Your task to perform on an android device: see sites visited before in the chrome app Image 0: 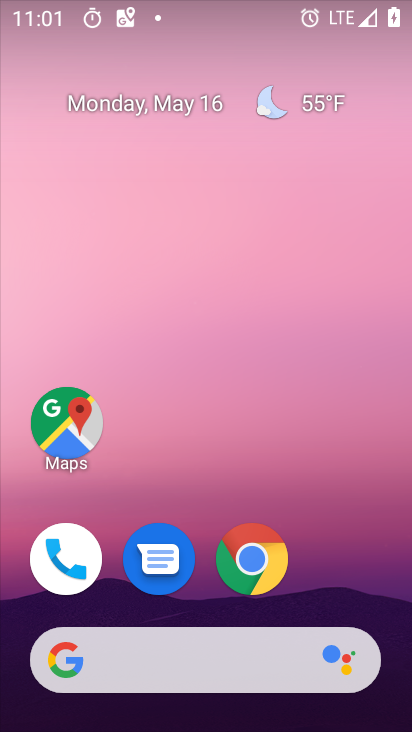
Step 0: click (259, 557)
Your task to perform on an android device: see sites visited before in the chrome app Image 1: 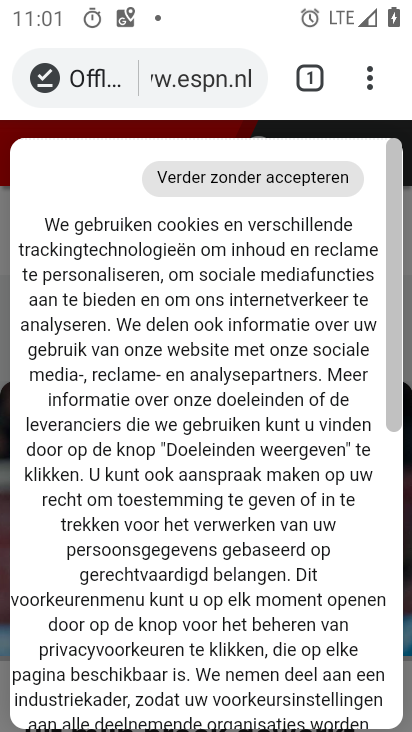
Step 1: click (365, 76)
Your task to perform on an android device: see sites visited before in the chrome app Image 2: 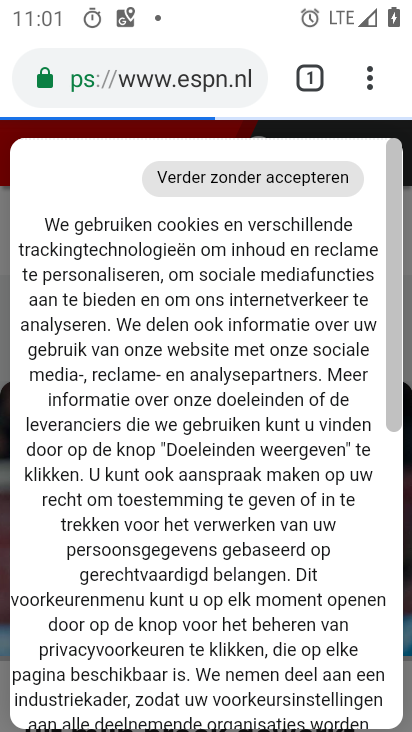
Step 2: task complete